Your task to perform on an android device: change text size in settings app Image 0: 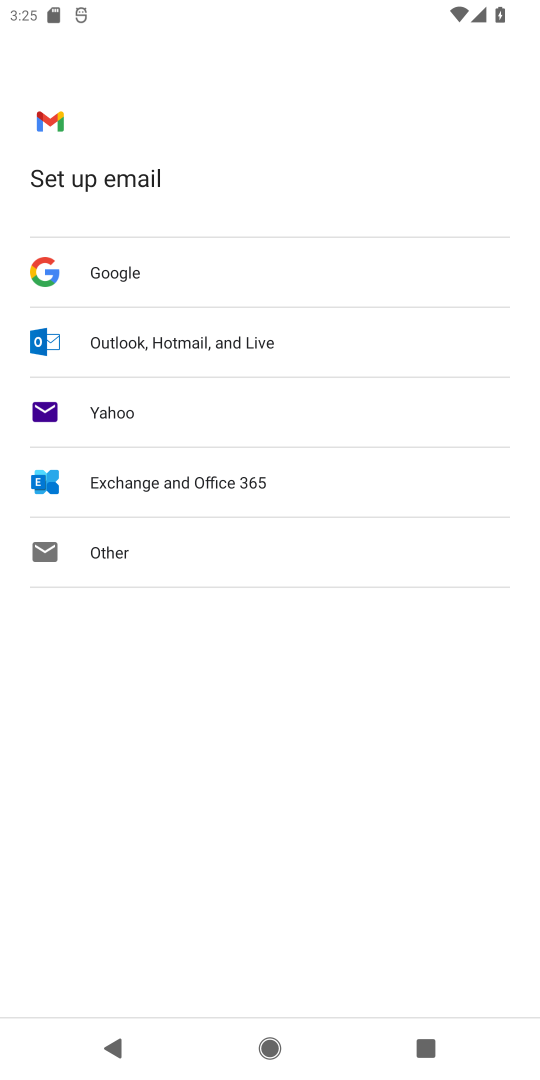
Step 0: press home button
Your task to perform on an android device: change text size in settings app Image 1: 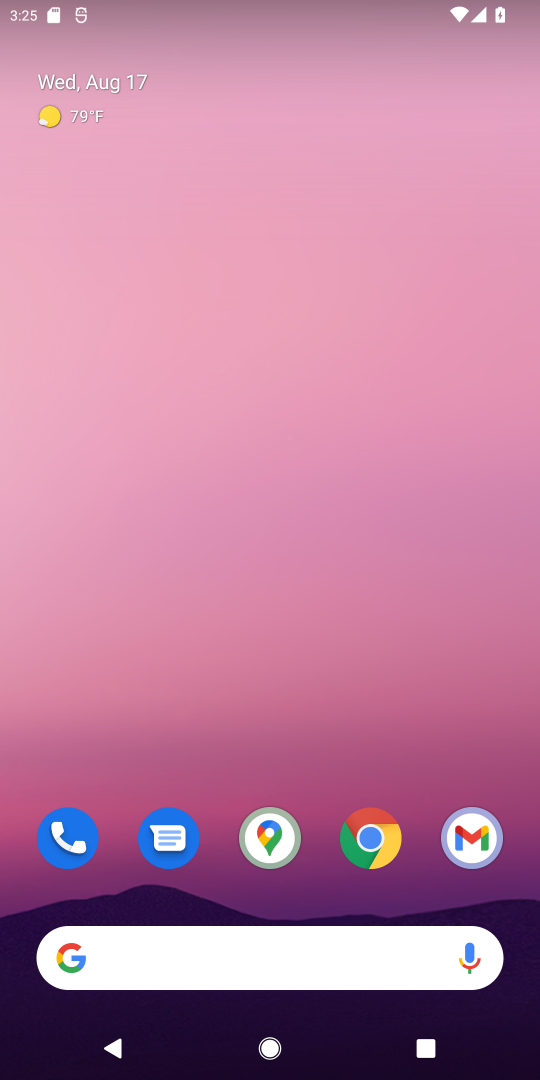
Step 1: drag from (197, 923) to (189, 406)
Your task to perform on an android device: change text size in settings app Image 2: 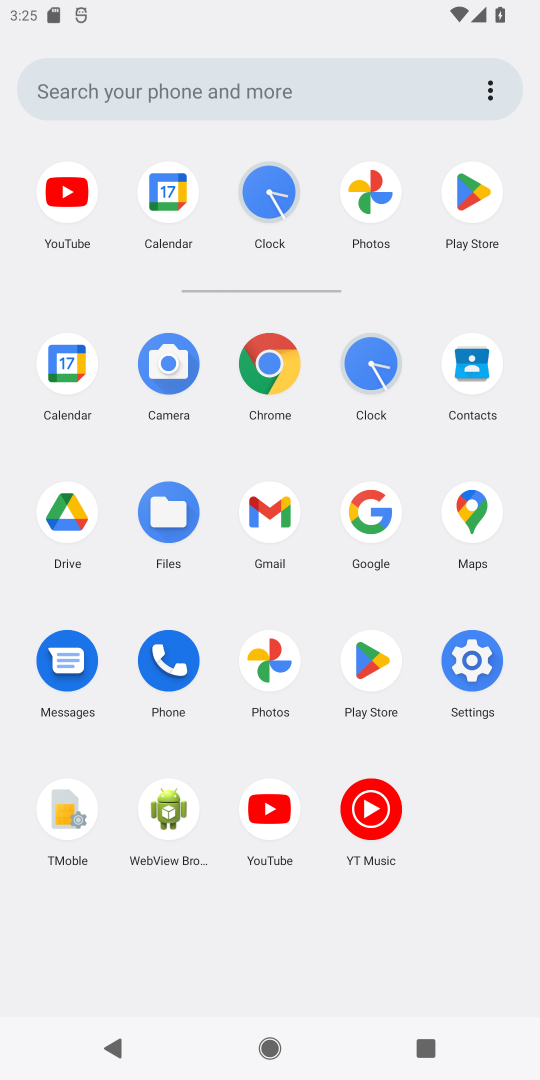
Step 2: click (445, 668)
Your task to perform on an android device: change text size in settings app Image 3: 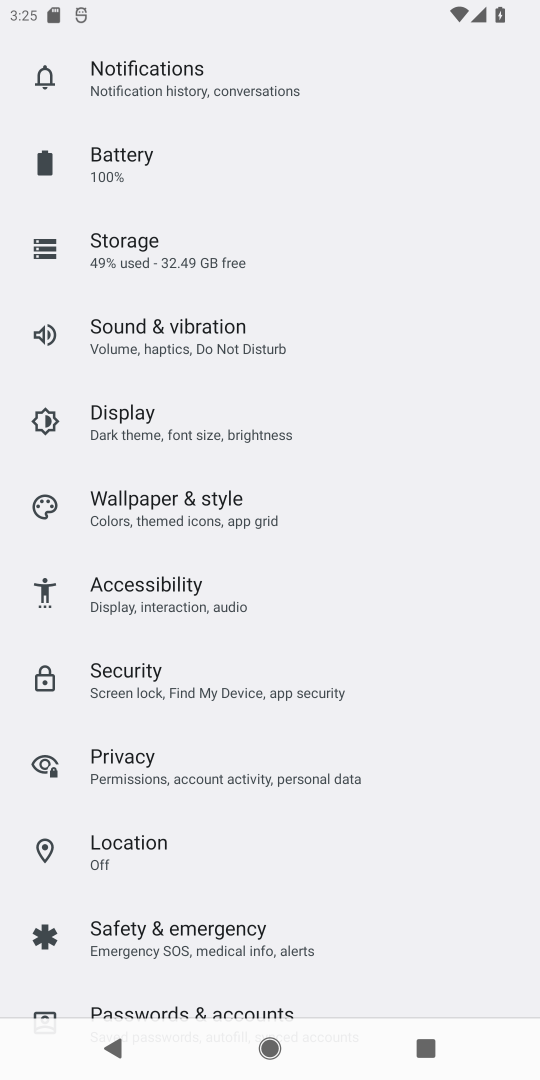
Step 3: click (184, 611)
Your task to perform on an android device: change text size in settings app Image 4: 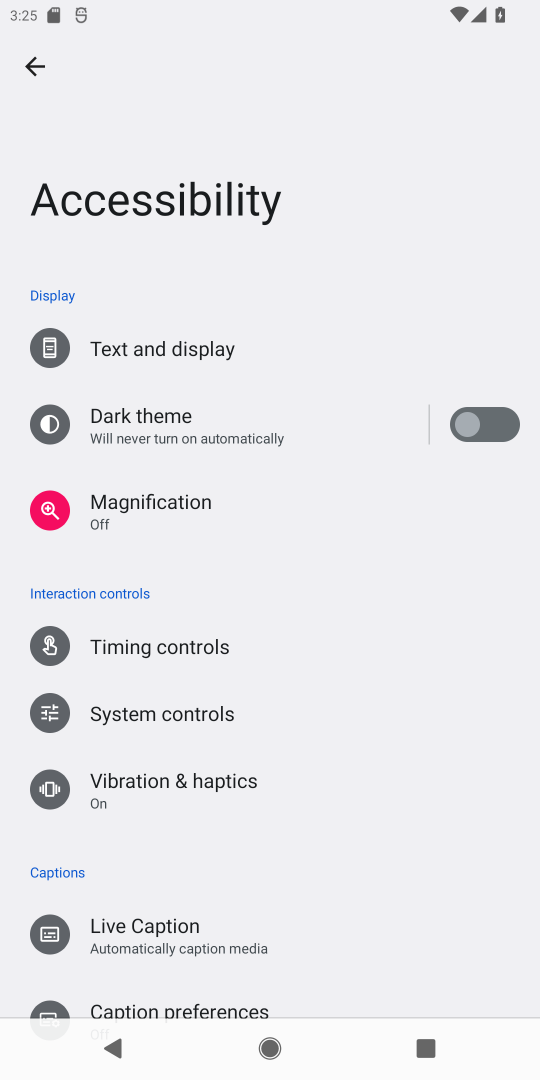
Step 4: drag from (158, 983) to (127, 591)
Your task to perform on an android device: change text size in settings app Image 5: 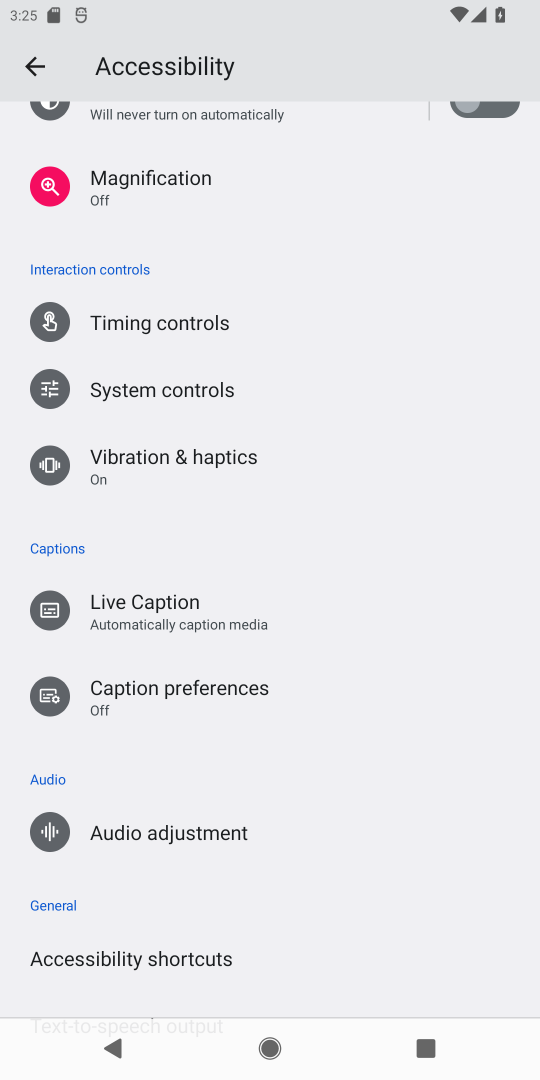
Step 5: drag from (103, 962) to (74, 570)
Your task to perform on an android device: change text size in settings app Image 6: 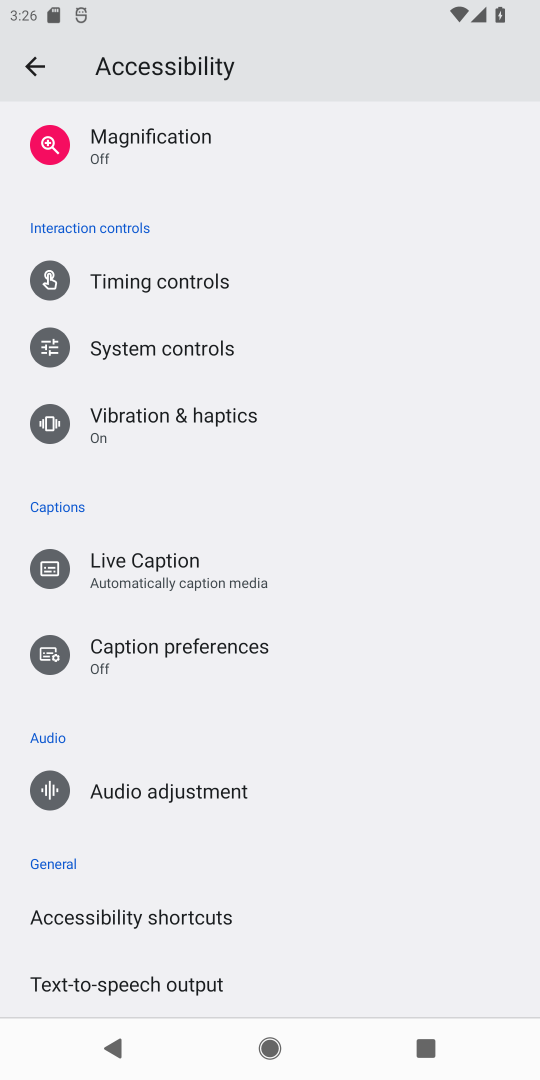
Step 6: drag from (102, 221) to (133, 823)
Your task to perform on an android device: change text size in settings app Image 7: 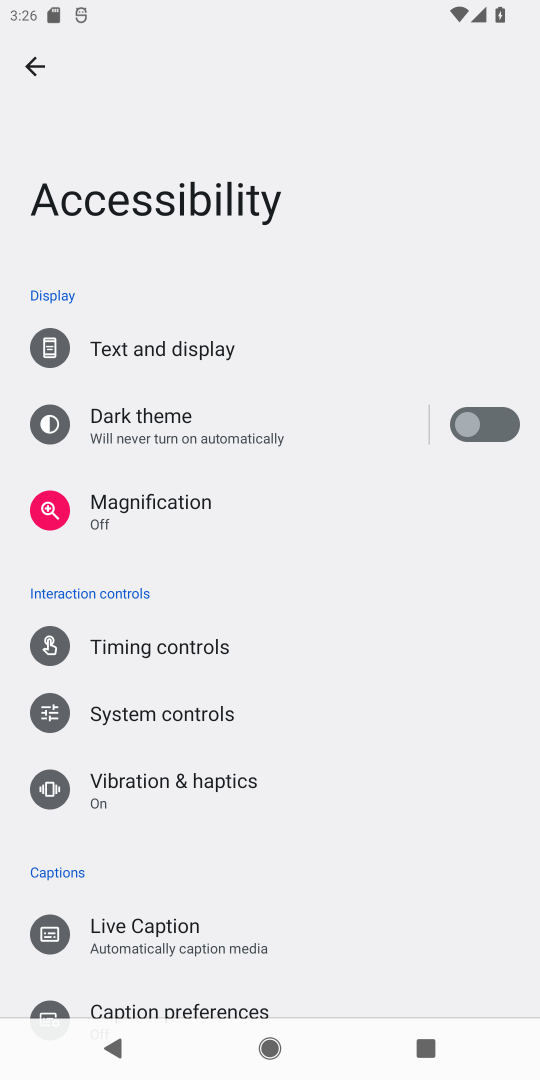
Step 7: click (135, 339)
Your task to perform on an android device: change text size in settings app Image 8: 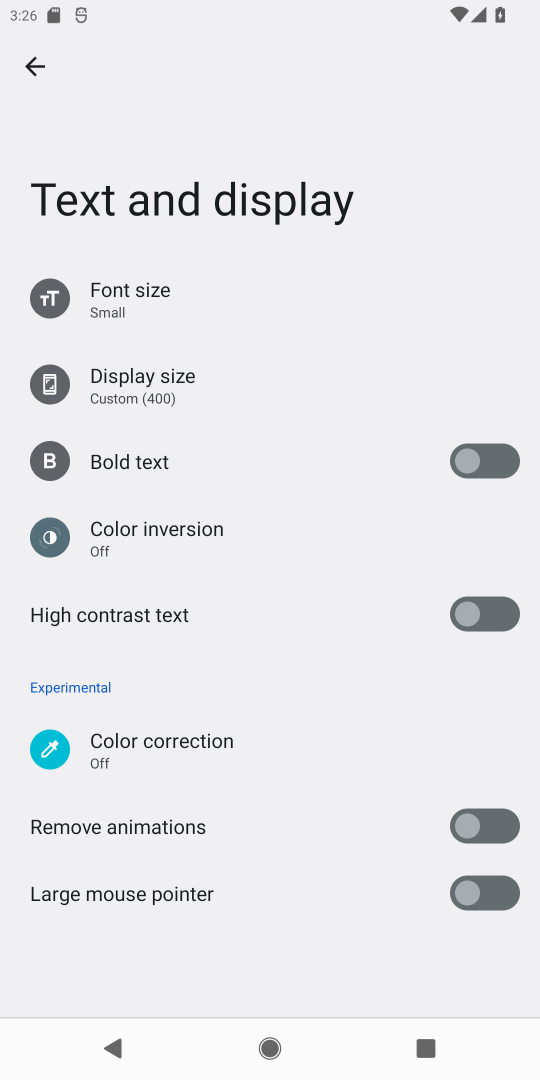
Step 8: click (131, 294)
Your task to perform on an android device: change text size in settings app Image 9: 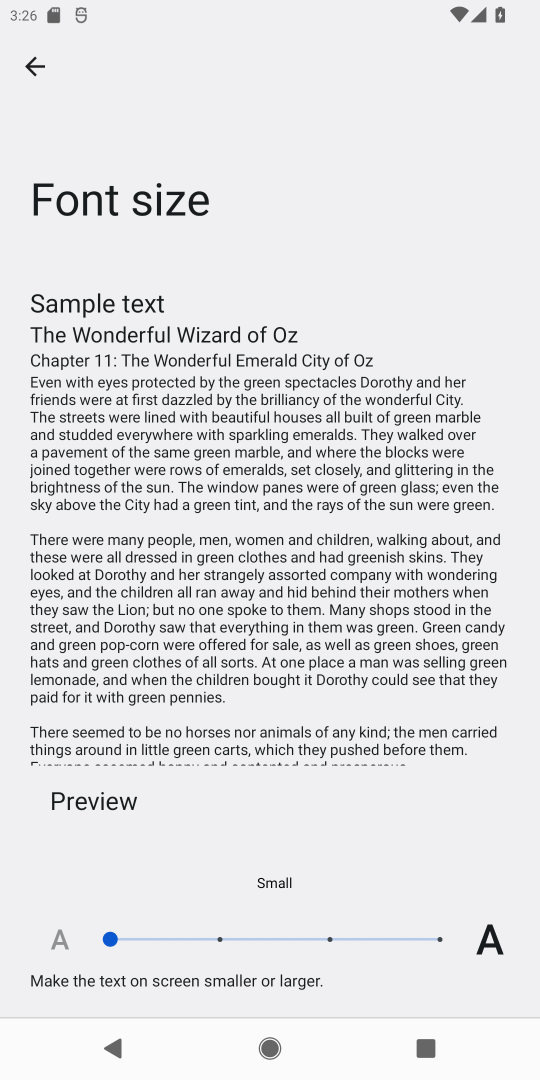
Step 9: click (226, 934)
Your task to perform on an android device: change text size in settings app Image 10: 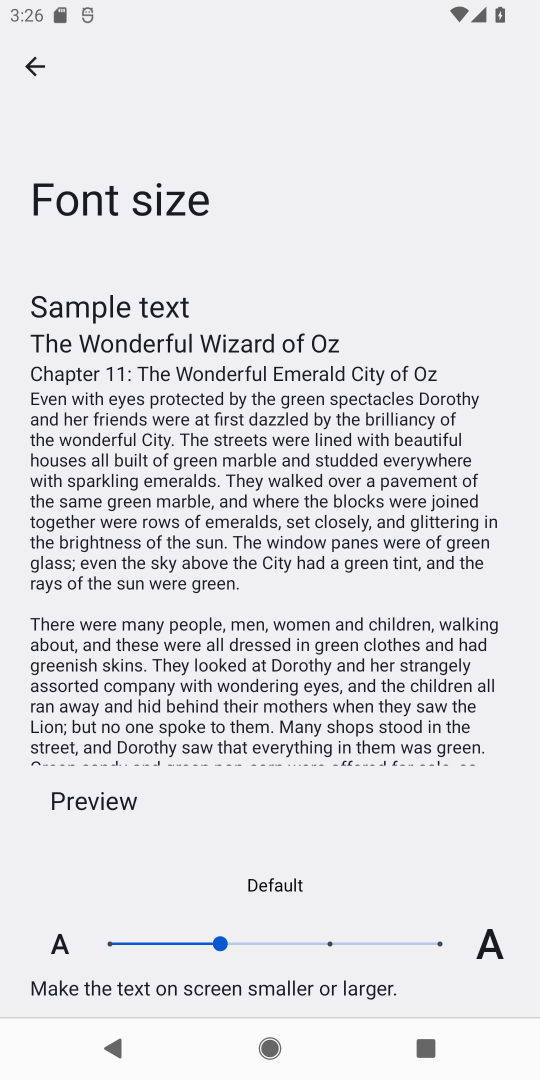
Step 10: task complete